Your task to perform on an android device: toggle sleep mode Image 0: 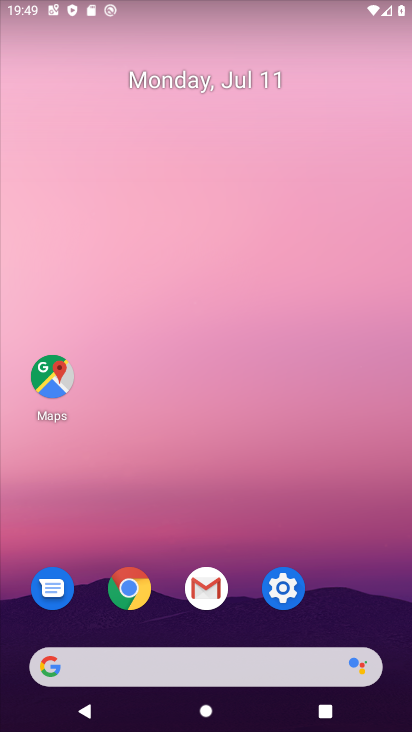
Step 0: click (277, 586)
Your task to perform on an android device: toggle sleep mode Image 1: 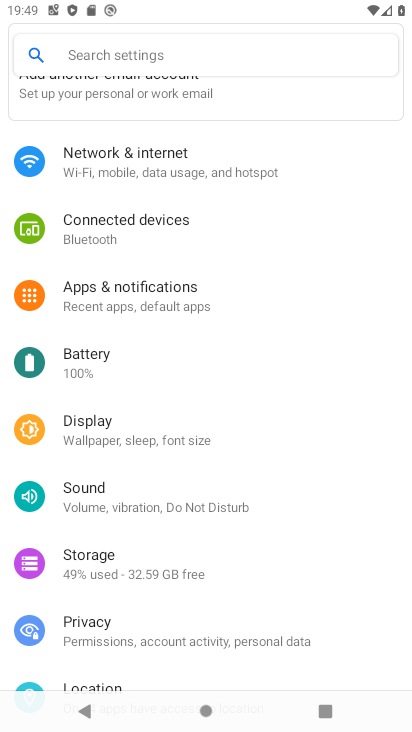
Step 1: click (98, 60)
Your task to perform on an android device: toggle sleep mode Image 2: 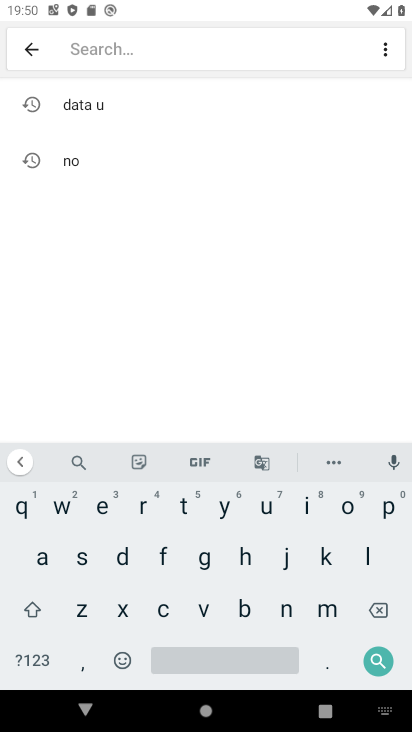
Step 2: click (77, 561)
Your task to perform on an android device: toggle sleep mode Image 3: 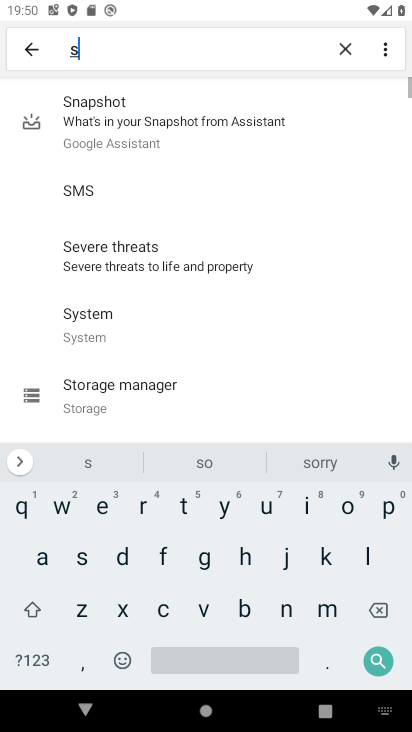
Step 3: click (364, 558)
Your task to perform on an android device: toggle sleep mode Image 4: 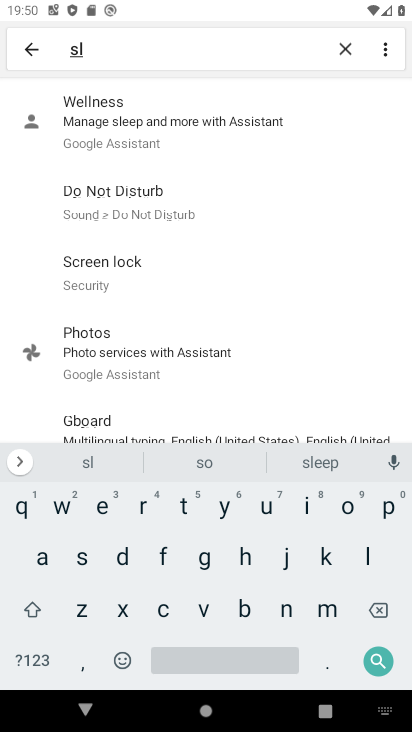
Step 4: click (103, 503)
Your task to perform on an android device: toggle sleep mode Image 5: 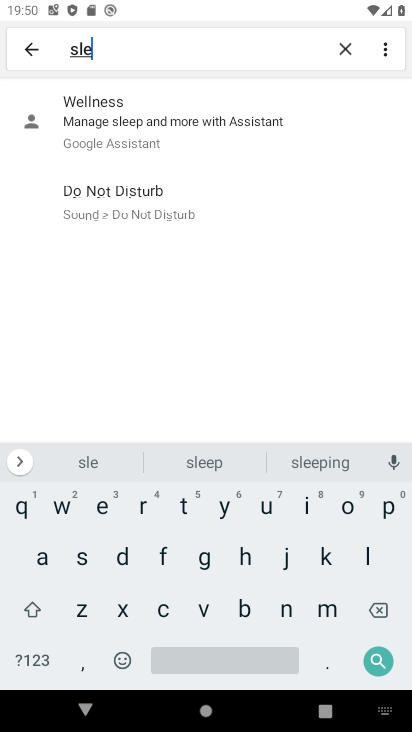
Step 5: click (134, 127)
Your task to perform on an android device: toggle sleep mode Image 6: 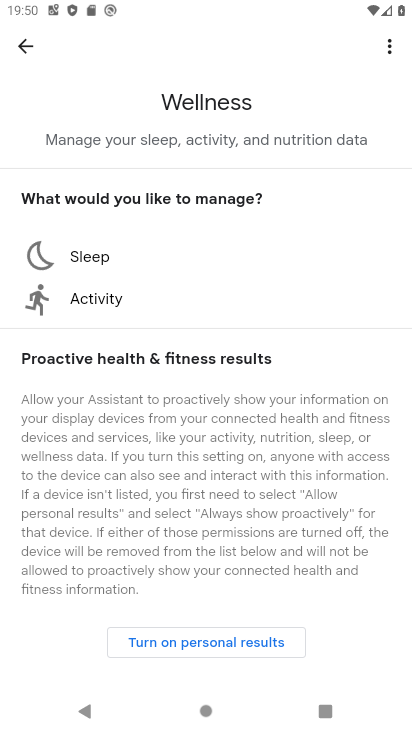
Step 6: click (116, 259)
Your task to perform on an android device: toggle sleep mode Image 7: 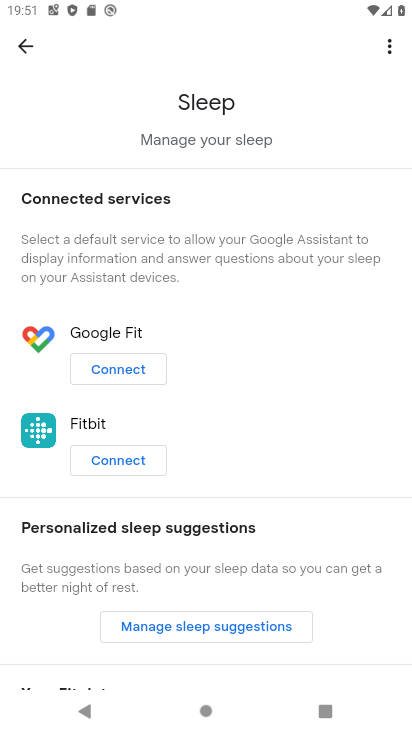
Step 7: task complete